Your task to perform on an android device: Go to Maps Image 0: 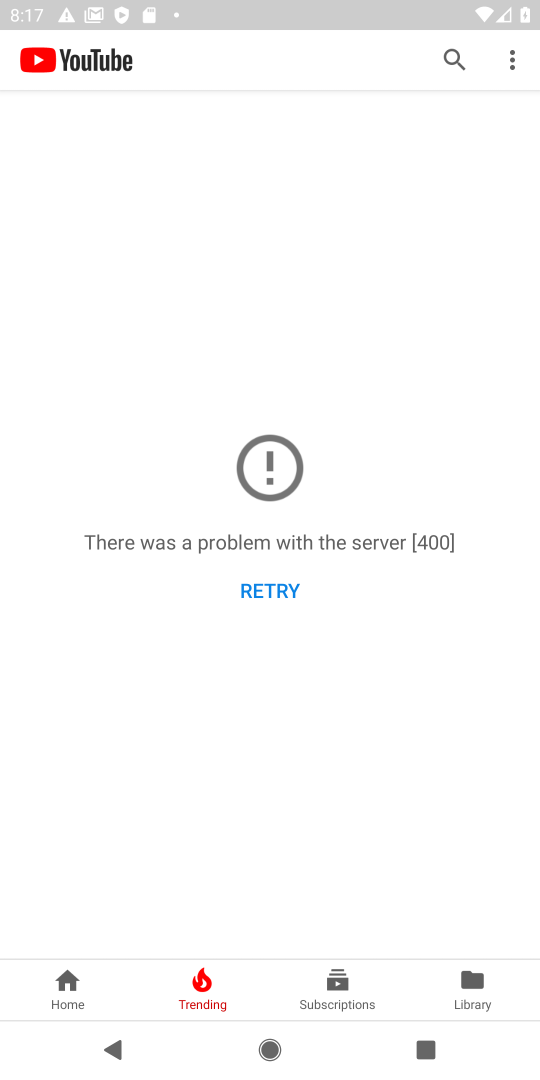
Step 0: press home button
Your task to perform on an android device: Go to Maps Image 1: 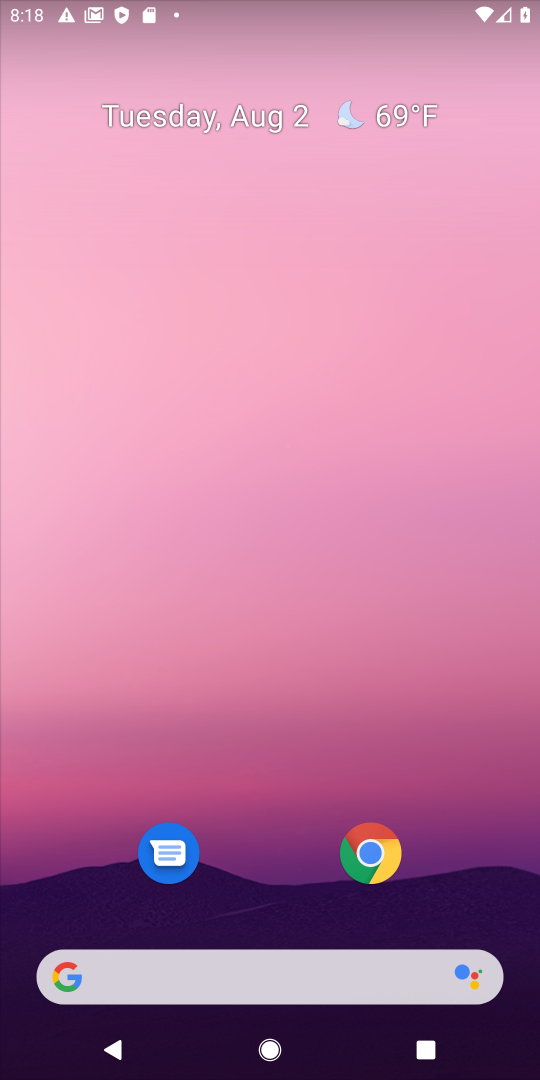
Step 1: drag from (287, 866) to (247, 234)
Your task to perform on an android device: Go to Maps Image 2: 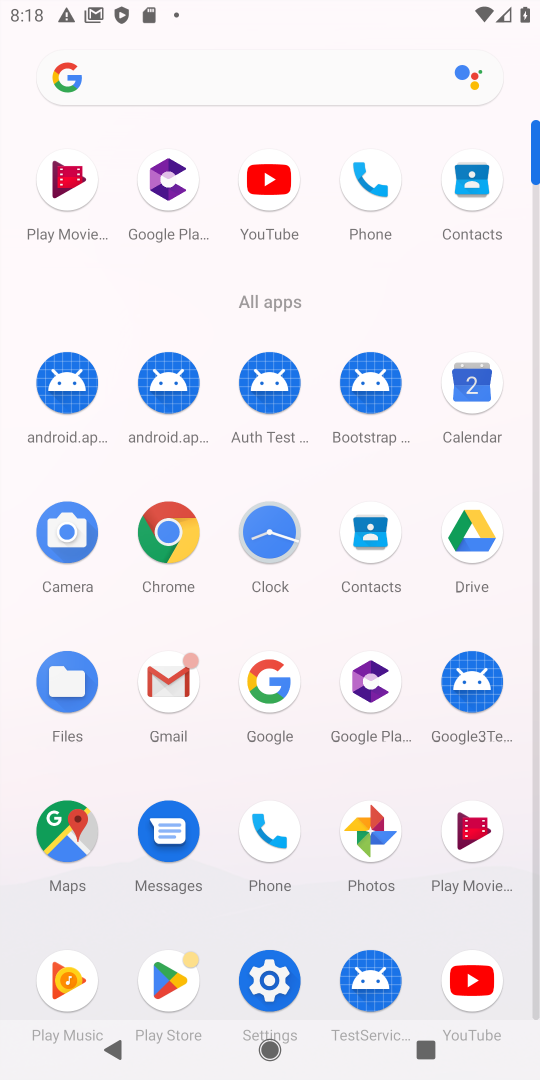
Step 2: click (68, 839)
Your task to perform on an android device: Go to Maps Image 3: 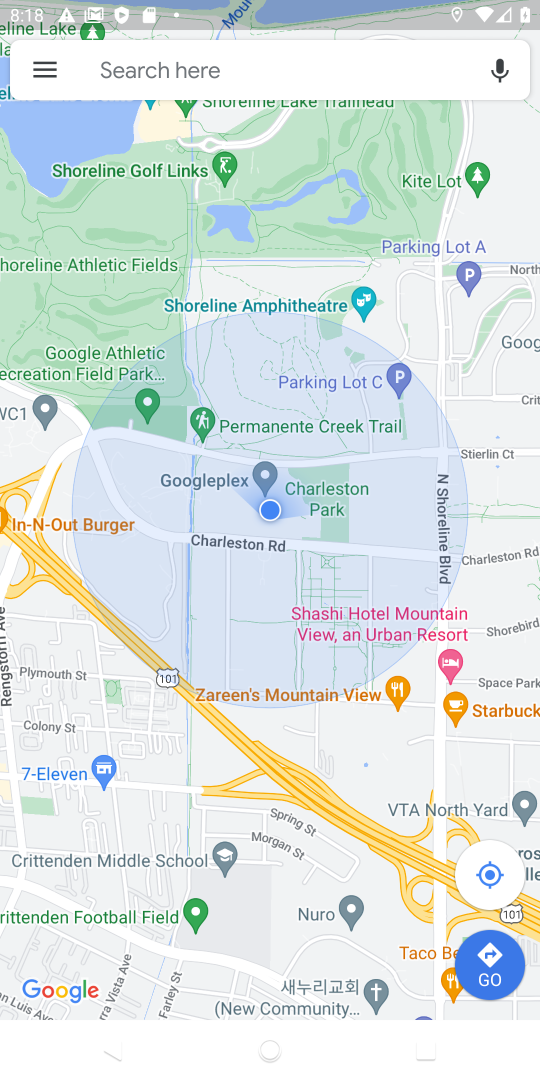
Step 3: task complete